Your task to perform on an android device: check the backup settings in the google photos Image 0: 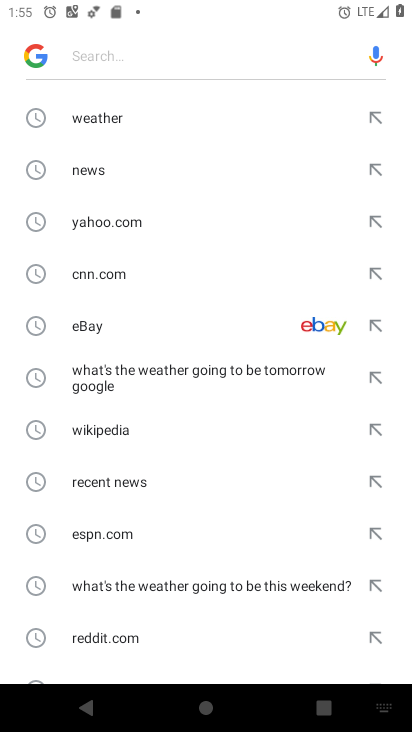
Step 0: press home button
Your task to perform on an android device: check the backup settings in the google photos Image 1: 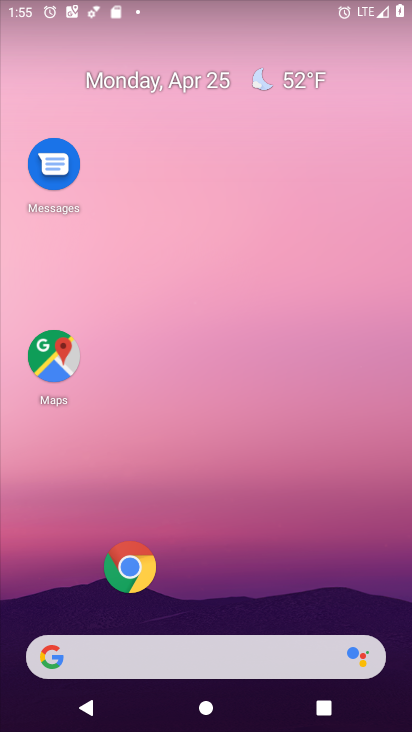
Step 1: drag from (211, 576) to (269, 131)
Your task to perform on an android device: check the backup settings in the google photos Image 2: 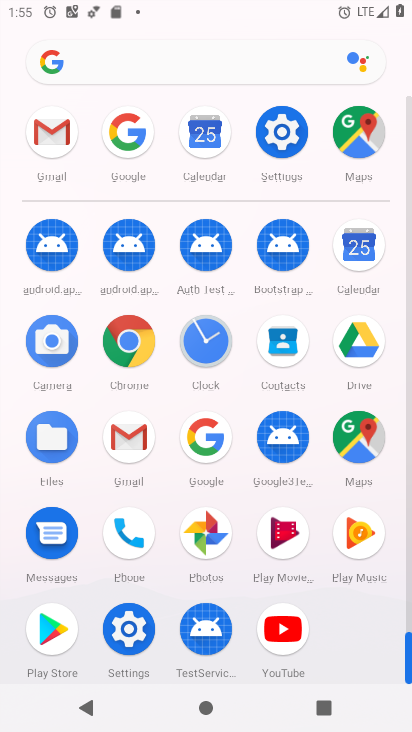
Step 2: click (206, 546)
Your task to perform on an android device: check the backup settings in the google photos Image 3: 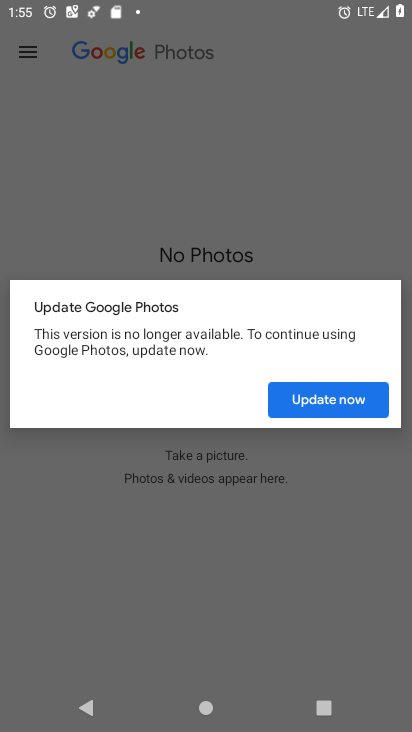
Step 3: task complete